Your task to perform on an android device: Turn off the flashlight Image 0: 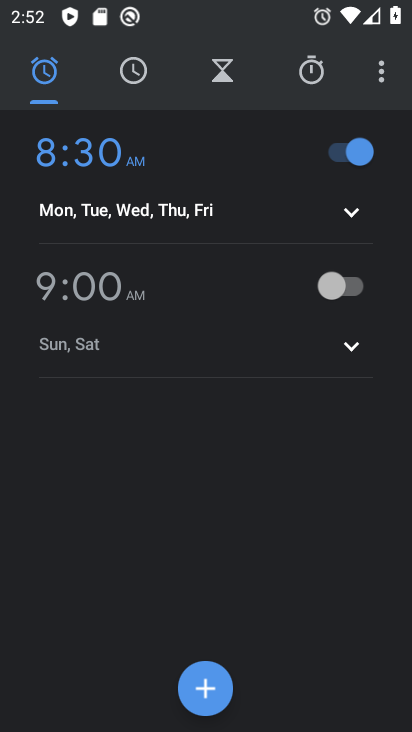
Step 0: press home button
Your task to perform on an android device: Turn off the flashlight Image 1: 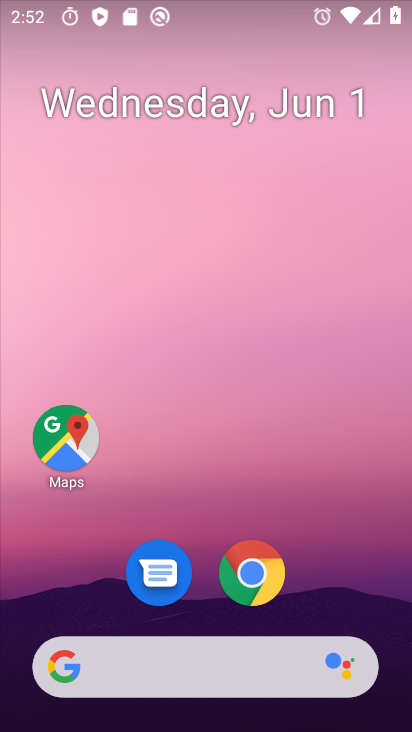
Step 1: drag from (203, 511) to (208, 150)
Your task to perform on an android device: Turn off the flashlight Image 2: 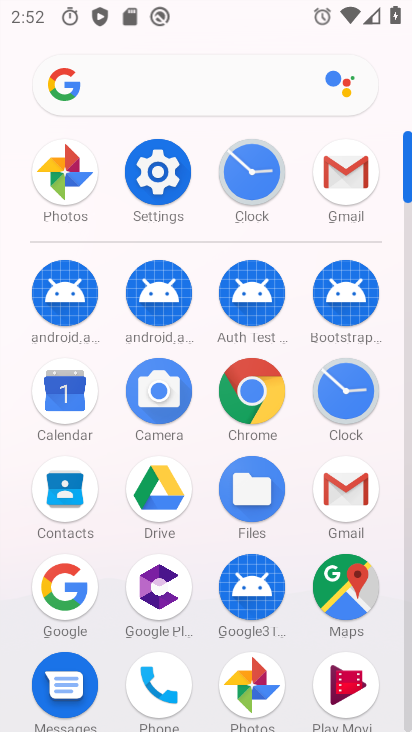
Step 2: click (161, 181)
Your task to perform on an android device: Turn off the flashlight Image 3: 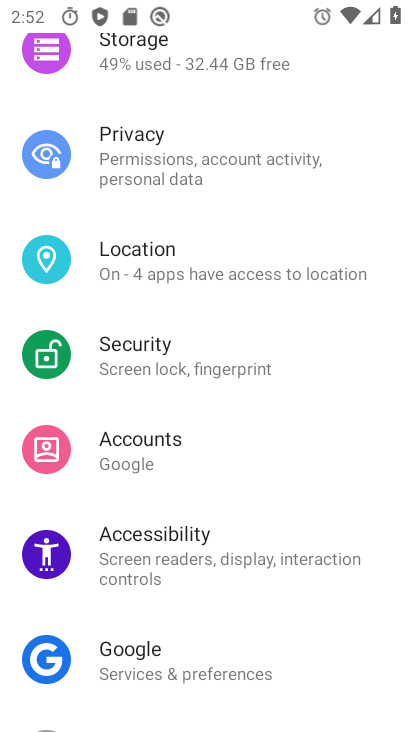
Step 3: task complete